Your task to perform on an android device: add a contact Image 0: 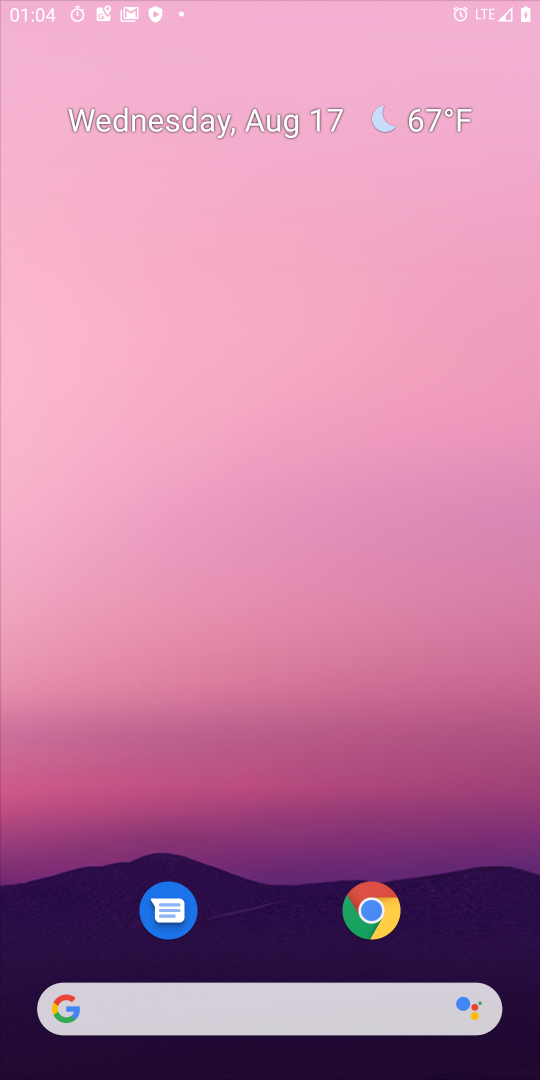
Step 0: drag from (279, 857) to (309, 40)
Your task to perform on an android device: add a contact Image 1: 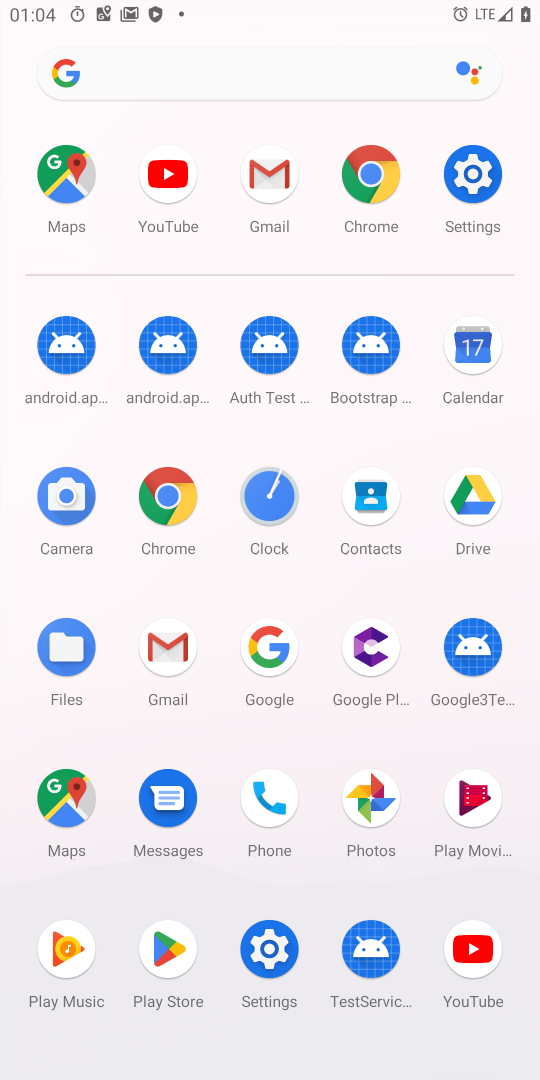
Step 1: click (377, 481)
Your task to perform on an android device: add a contact Image 2: 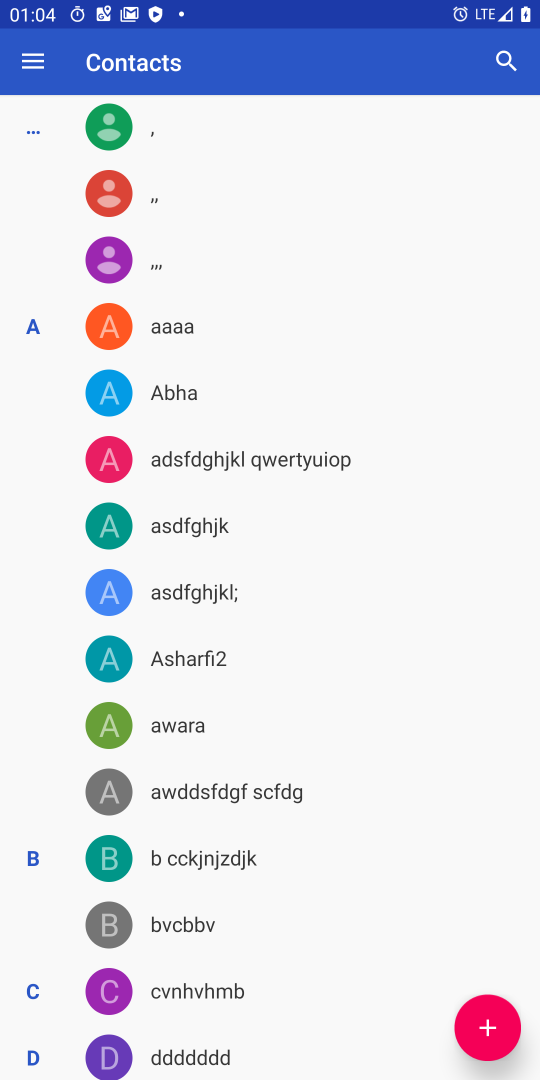
Step 2: click (495, 1032)
Your task to perform on an android device: add a contact Image 3: 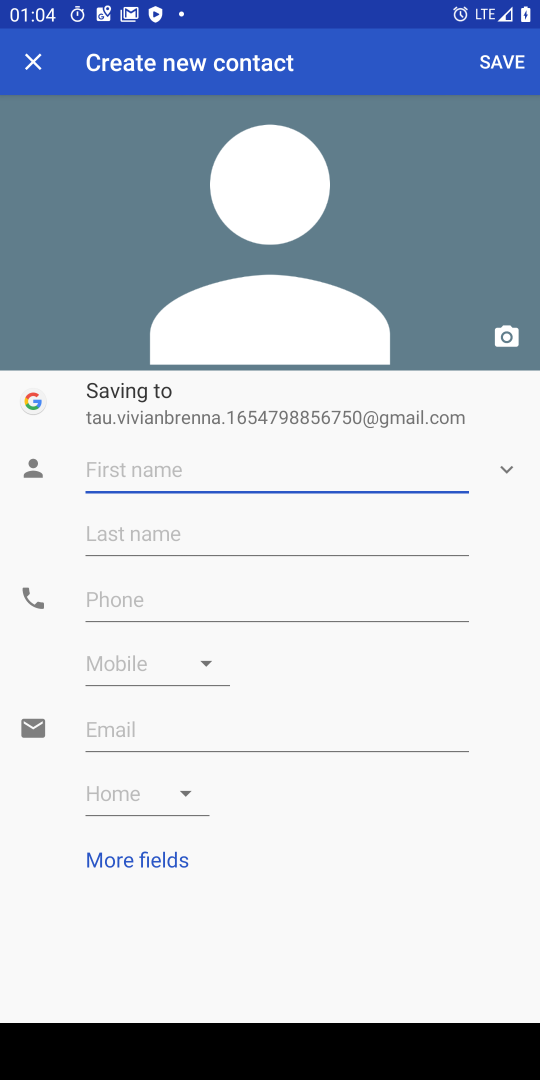
Step 3: type "opoio"
Your task to perform on an android device: add a contact Image 4: 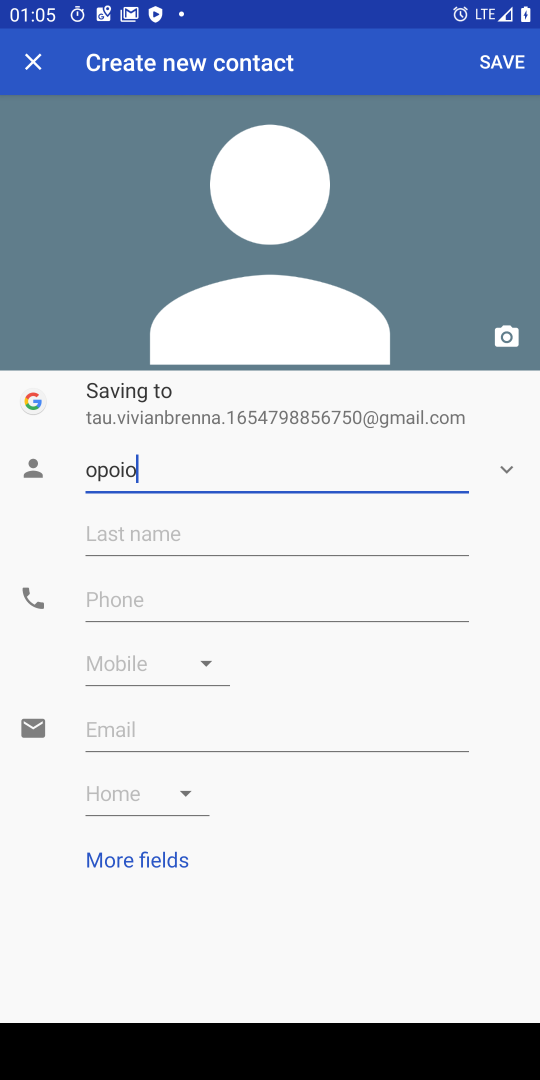
Step 4: click (512, 66)
Your task to perform on an android device: add a contact Image 5: 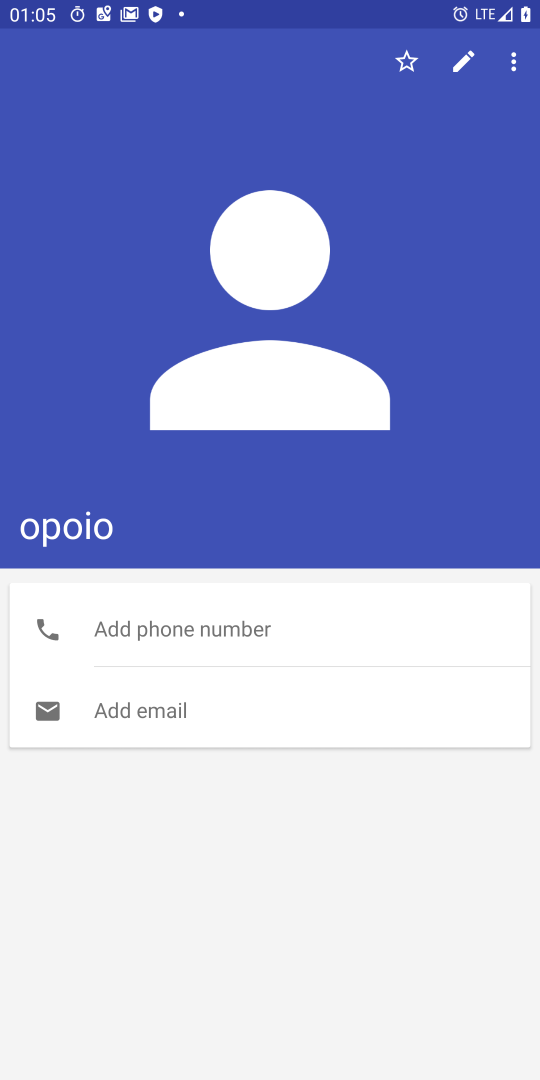
Step 5: task complete